Your task to perform on an android device: turn on wifi Image 0: 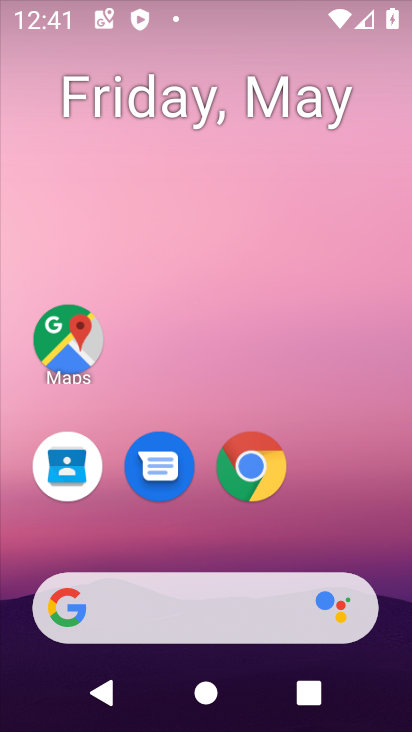
Step 0: click (399, 479)
Your task to perform on an android device: turn on wifi Image 1: 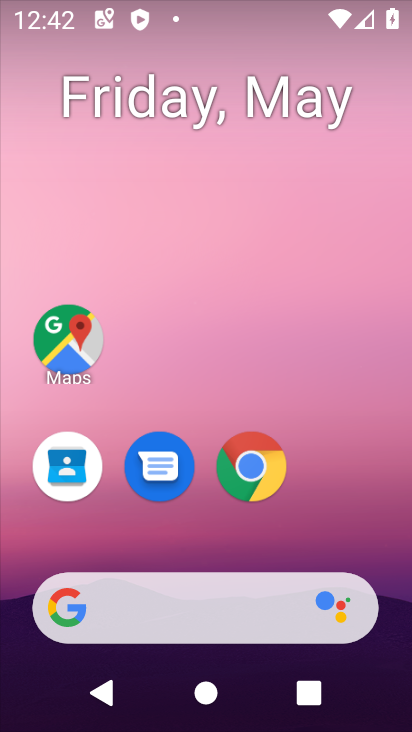
Step 1: drag from (229, 529) to (206, 130)
Your task to perform on an android device: turn on wifi Image 2: 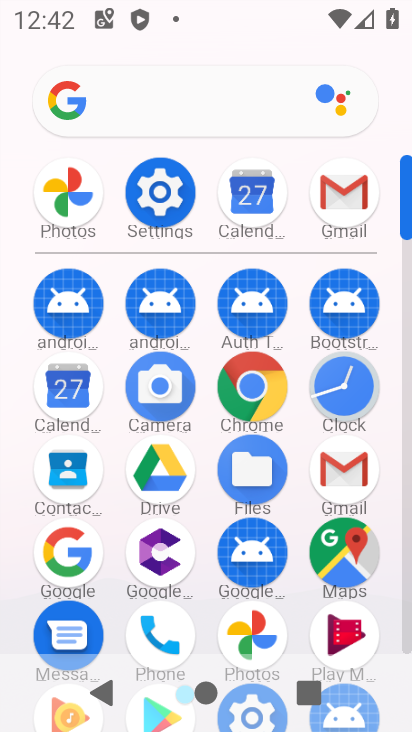
Step 2: click (145, 192)
Your task to perform on an android device: turn on wifi Image 3: 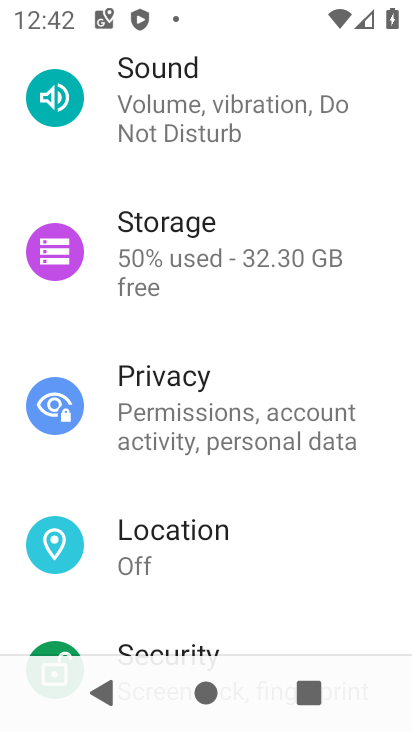
Step 3: drag from (178, 157) to (244, 564)
Your task to perform on an android device: turn on wifi Image 4: 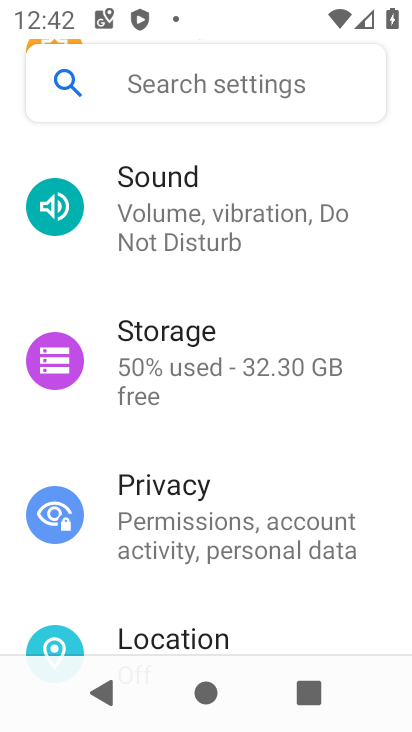
Step 4: drag from (204, 476) to (204, 568)
Your task to perform on an android device: turn on wifi Image 5: 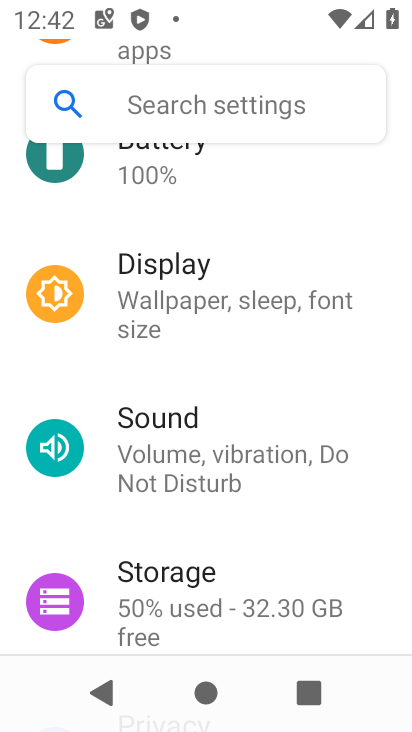
Step 5: drag from (221, 512) to (225, 689)
Your task to perform on an android device: turn on wifi Image 6: 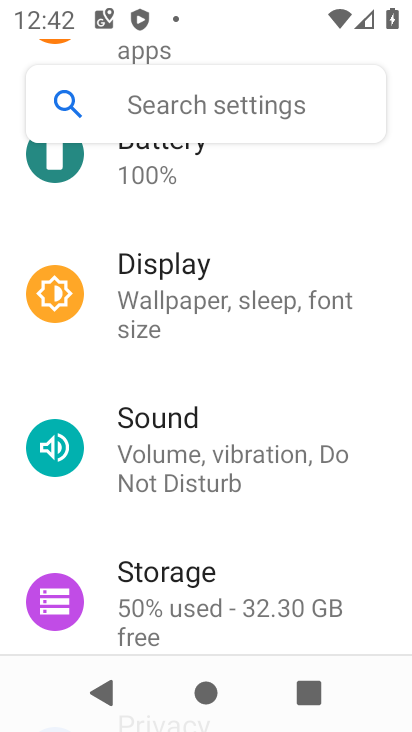
Step 6: drag from (216, 252) to (272, 603)
Your task to perform on an android device: turn on wifi Image 7: 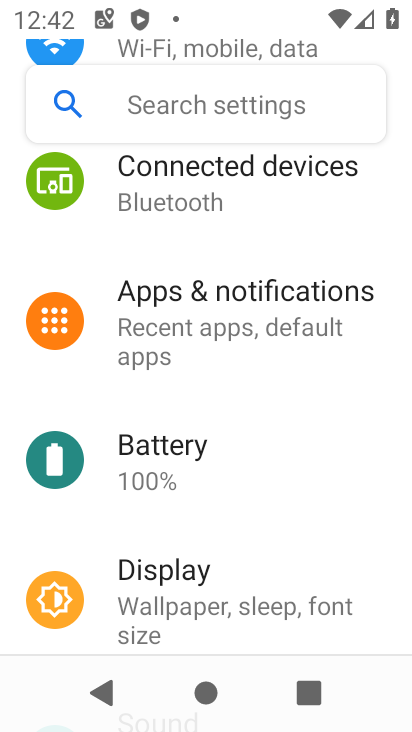
Step 7: drag from (156, 214) to (261, 613)
Your task to perform on an android device: turn on wifi Image 8: 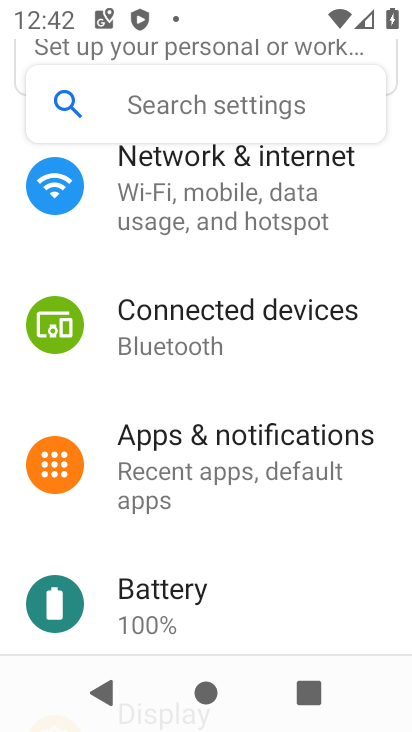
Step 8: click (203, 195)
Your task to perform on an android device: turn on wifi Image 9: 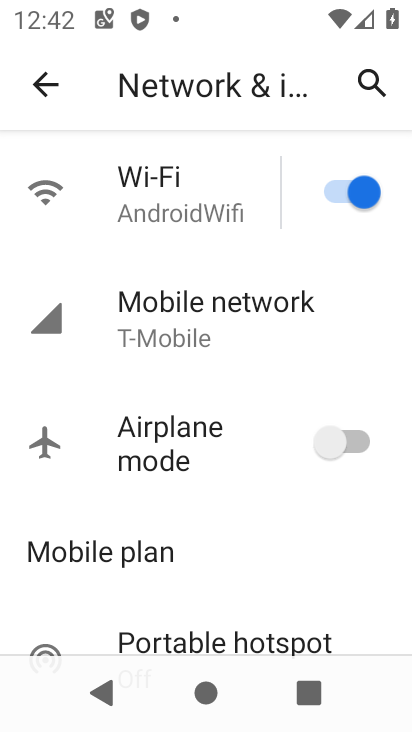
Step 9: task complete